Your task to perform on an android device: check the backup settings in the google photos Image 0: 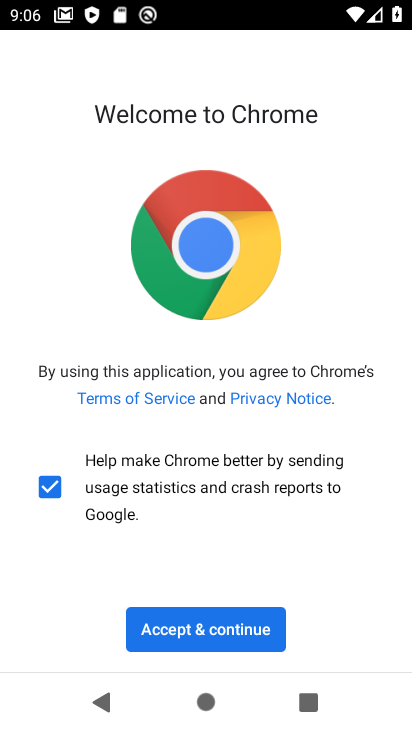
Step 0: press home button
Your task to perform on an android device: check the backup settings in the google photos Image 1: 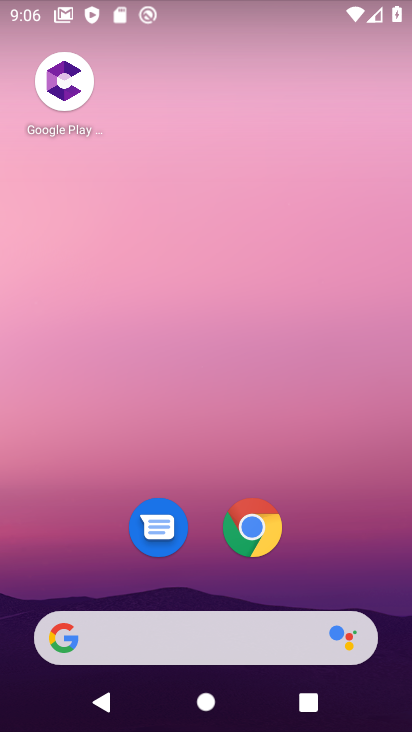
Step 1: drag from (276, 589) to (302, 172)
Your task to perform on an android device: check the backup settings in the google photos Image 2: 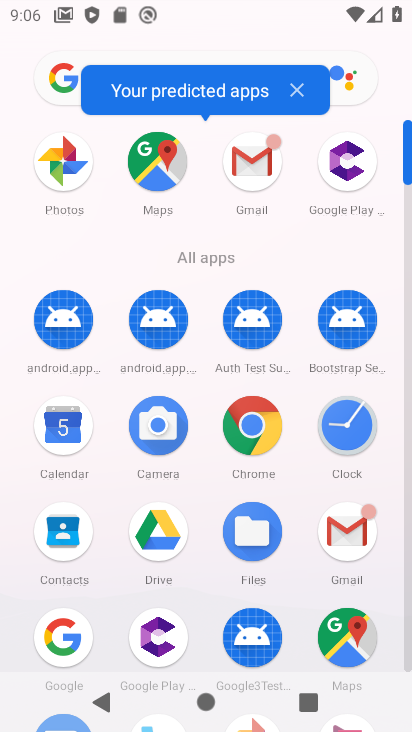
Step 2: click (72, 165)
Your task to perform on an android device: check the backup settings in the google photos Image 3: 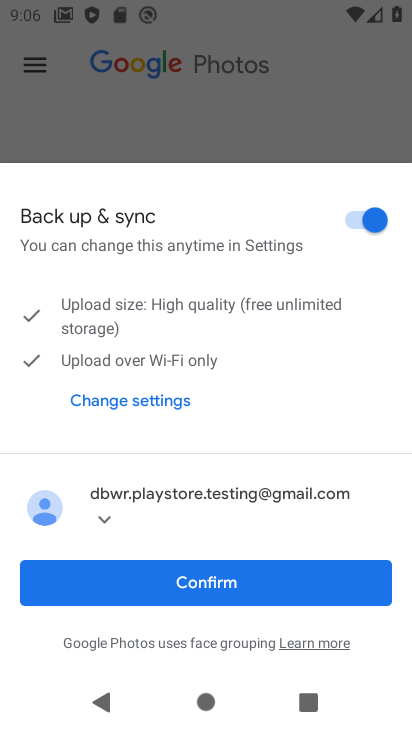
Step 3: click (34, 70)
Your task to perform on an android device: check the backup settings in the google photos Image 4: 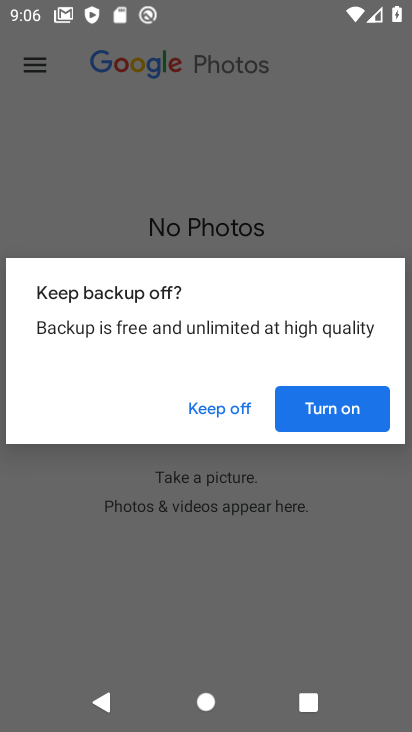
Step 4: click (349, 409)
Your task to perform on an android device: check the backup settings in the google photos Image 5: 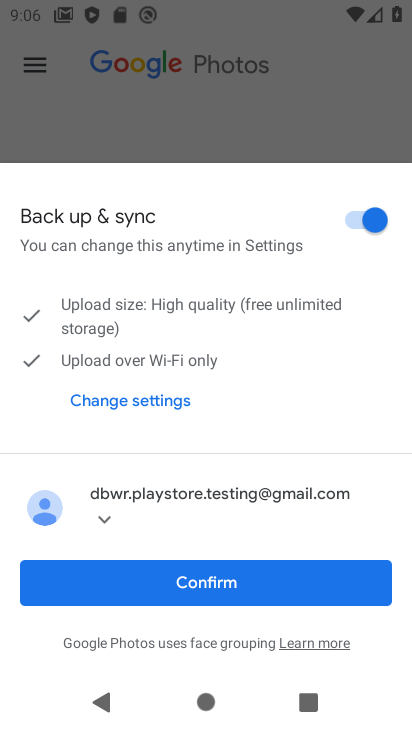
Step 5: click (226, 594)
Your task to perform on an android device: check the backup settings in the google photos Image 6: 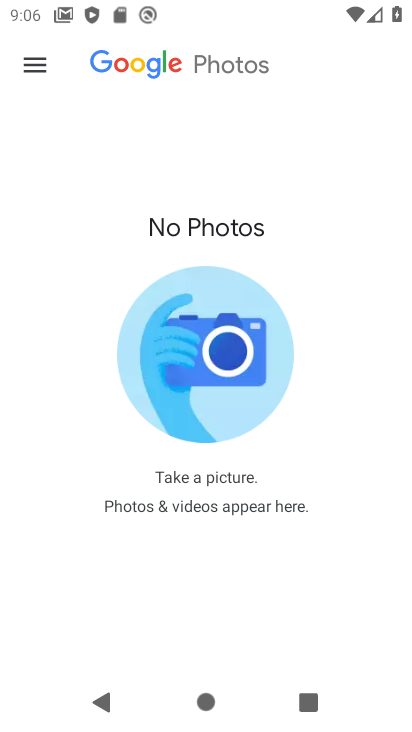
Step 6: click (29, 75)
Your task to perform on an android device: check the backup settings in the google photos Image 7: 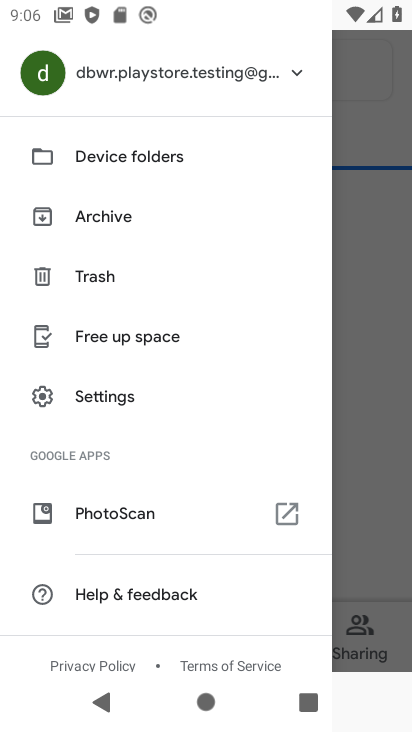
Step 7: click (154, 407)
Your task to perform on an android device: check the backup settings in the google photos Image 8: 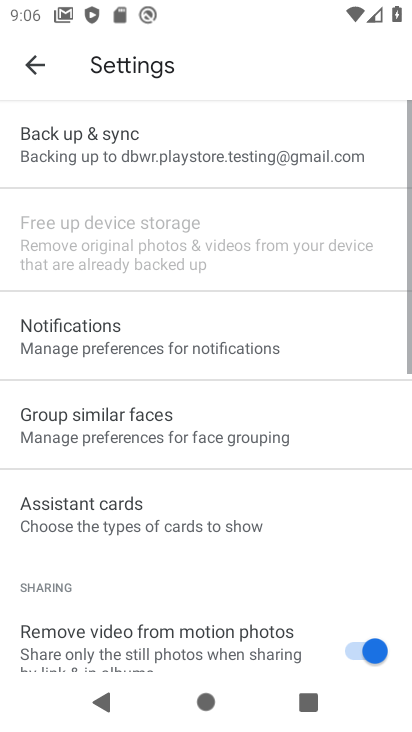
Step 8: click (167, 164)
Your task to perform on an android device: check the backup settings in the google photos Image 9: 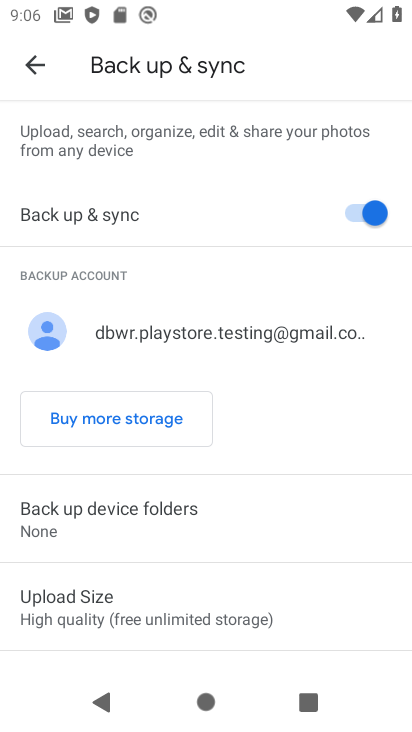
Step 9: task complete